Your task to perform on an android device: delete location history Image 0: 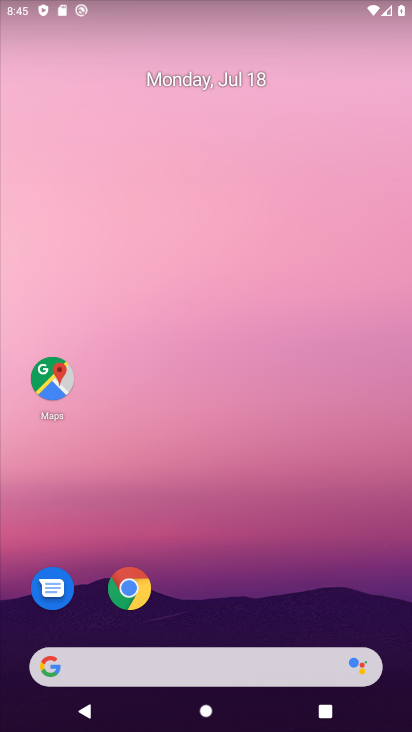
Step 0: click (52, 381)
Your task to perform on an android device: delete location history Image 1: 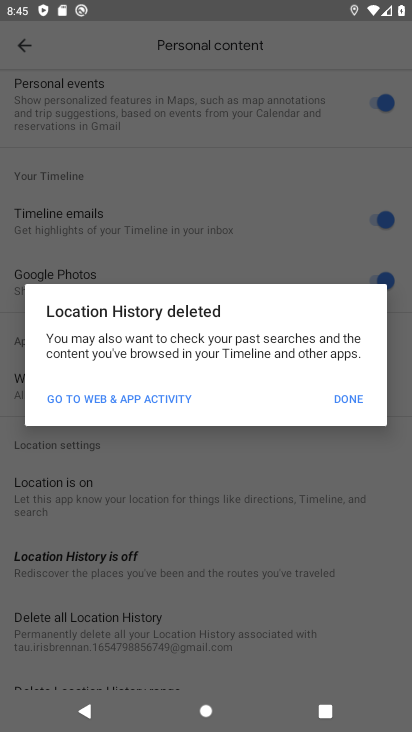
Step 1: click (352, 397)
Your task to perform on an android device: delete location history Image 2: 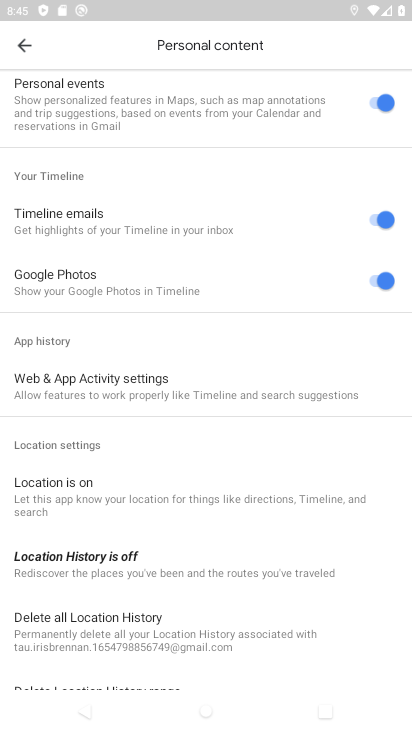
Step 2: click (169, 612)
Your task to perform on an android device: delete location history Image 3: 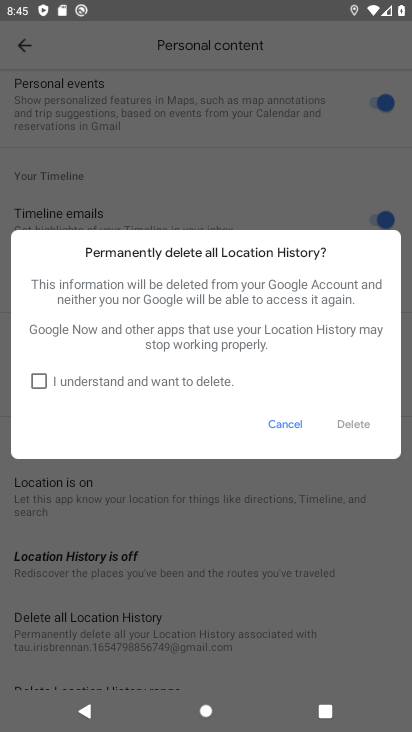
Step 3: click (157, 379)
Your task to perform on an android device: delete location history Image 4: 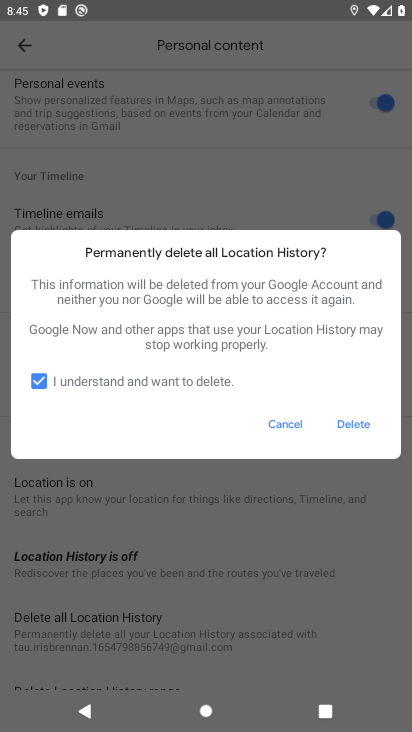
Step 4: click (343, 421)
Your task to perform on an android device: delete location history Image 5: 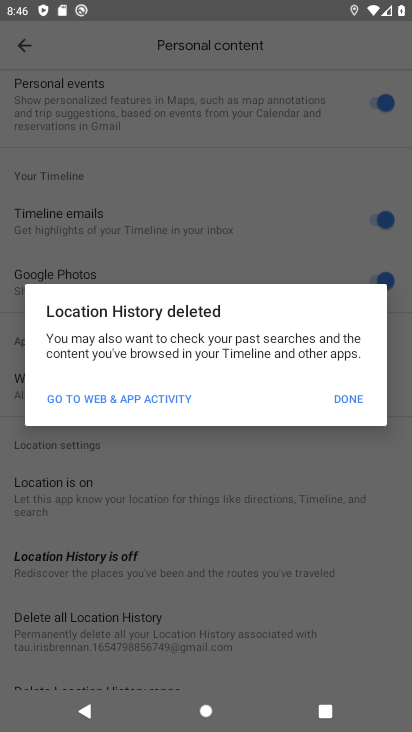
Step 5: task complete